Your task to perform on an android device: turn pop-ups off in chrome Image 0: 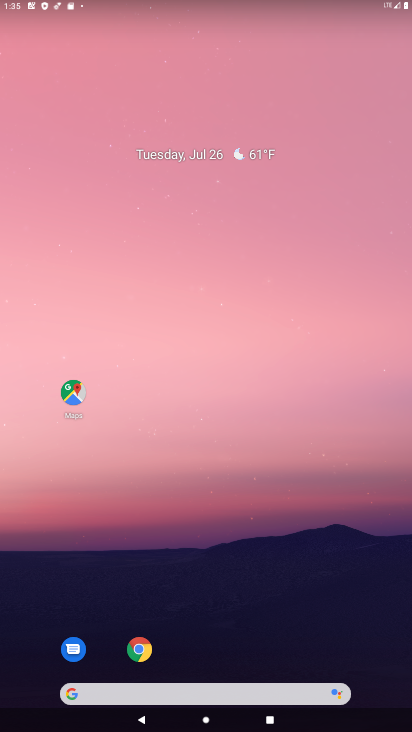
Step 0: click (145, 643)
Your task to perform on an android device: turn pop-ups off in chrome Image 1: 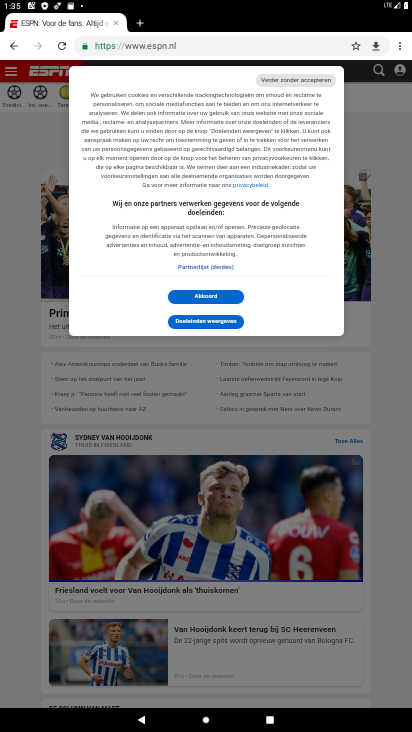
Step 1: click (398, 50)
Your task to perform on an android device: turn pop-ups off in chrome Image 2: 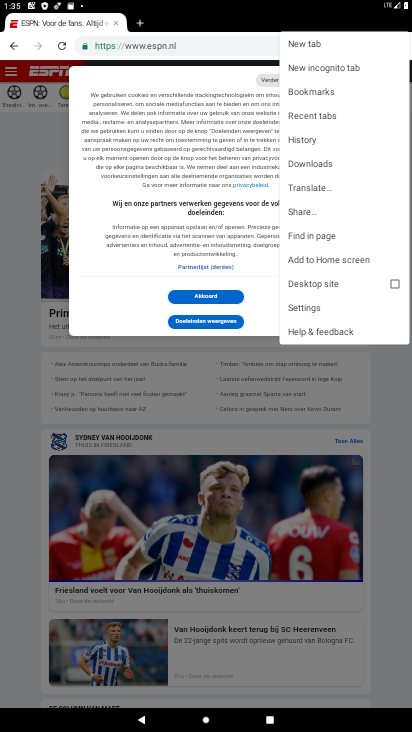
Step 2: click (308, 306)
Your task to perform on an android device: turn pop-ups off in chrome Image 3: 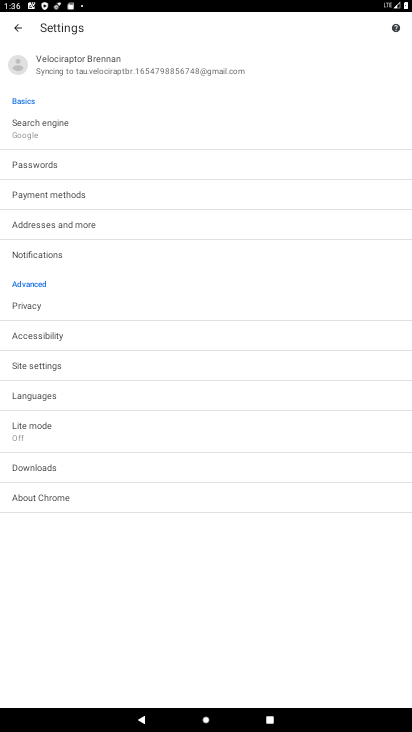
Step 3: click (30, 362)
Your task to perform on an android device: turn pop-ups off in chrome Image 4: 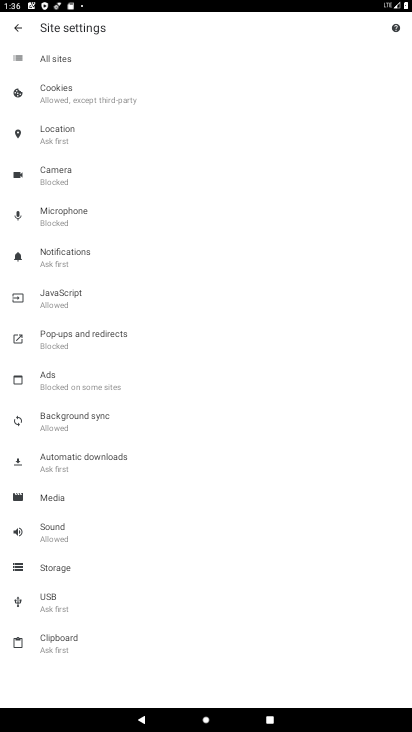
Step 4: click (98, 333)
Your task to perform on an android device: turn pop-ups off in chrome Image 5: 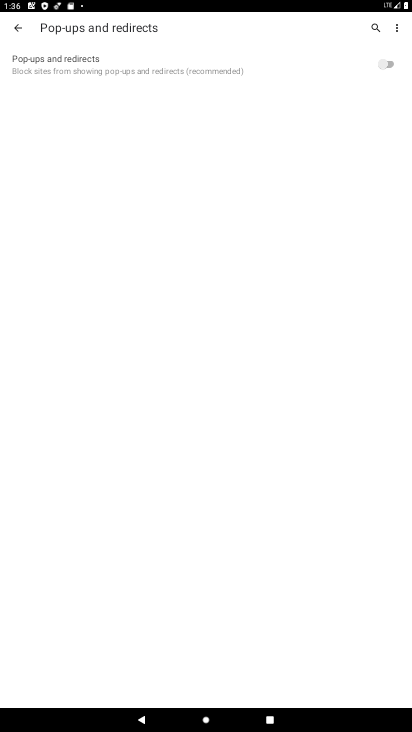
Step 5: task complete